Your task to perform on an android device: Go to battery settings Image 0: 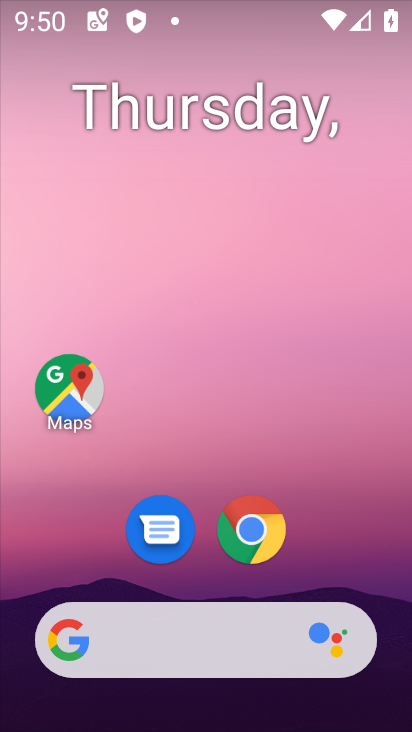
Step 0: drag from (260, 699) to (321, 28)
Your task to perform on an android device: Go to battery settings Image 1: 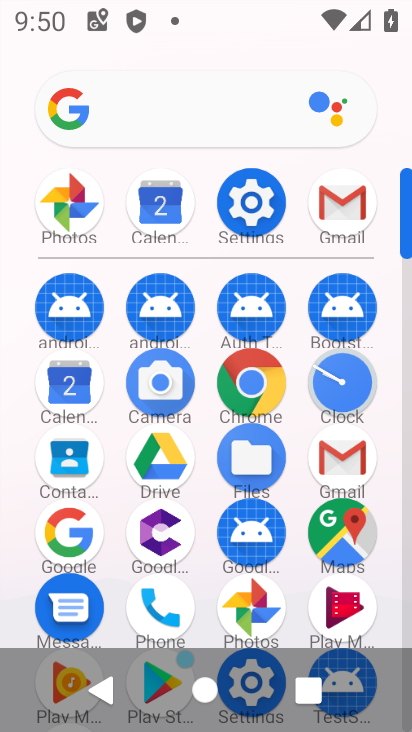
Step 1: click (266, 185)
Your task to perform on an android device: Go to battery settings Image 2: 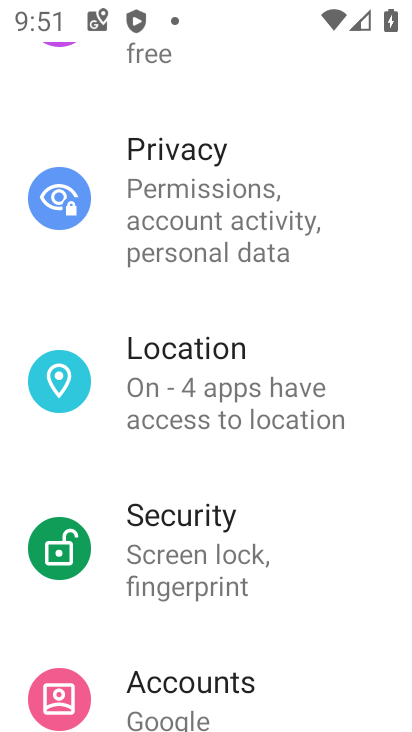
Step 2: drag from (223, 141) to (252, 635)
Your task to perform on an android device: Go to battery settings Image 3: 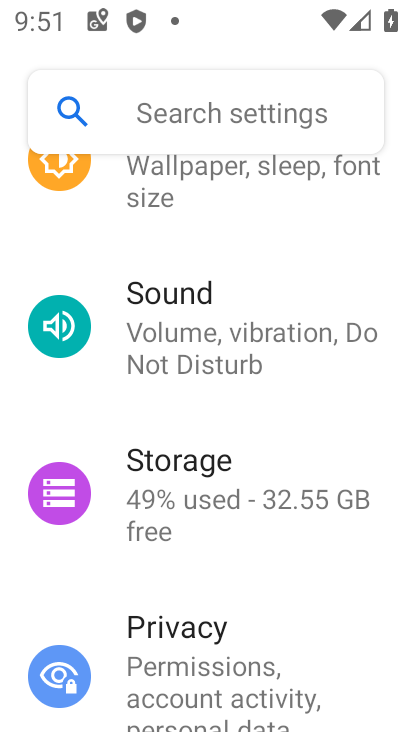
Step 3: drag from (320, 211) to (231, 666)
Your task to perform on an android device: Go to battery settings Image 4: 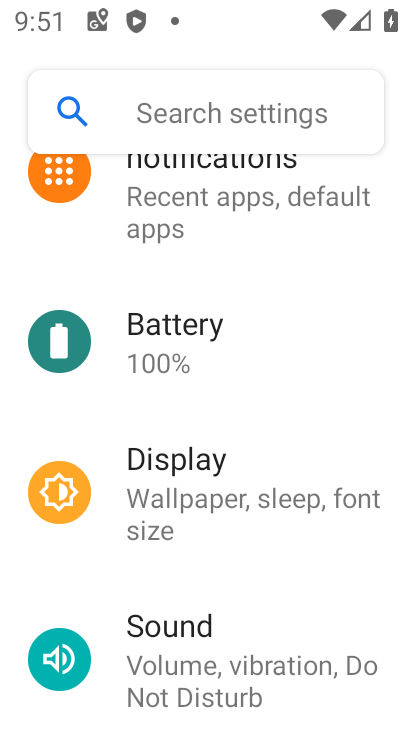
Step 4: click (245, 341)
Your task to perform on an android device: Go to battery settings Image 5: 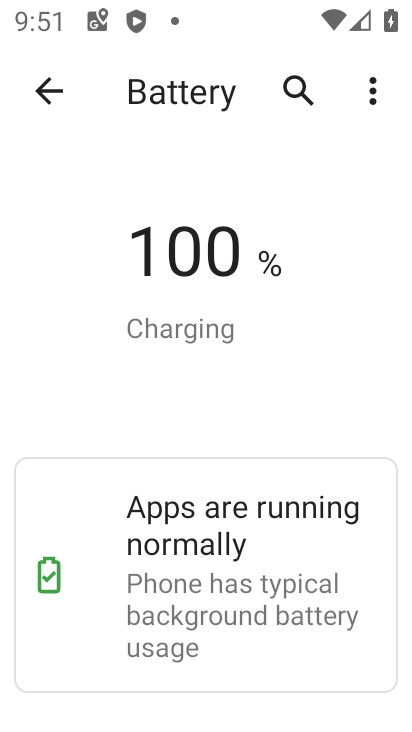
Step 5: task complete